Your task to perform on an android device: Go to CNN.com Image 0: 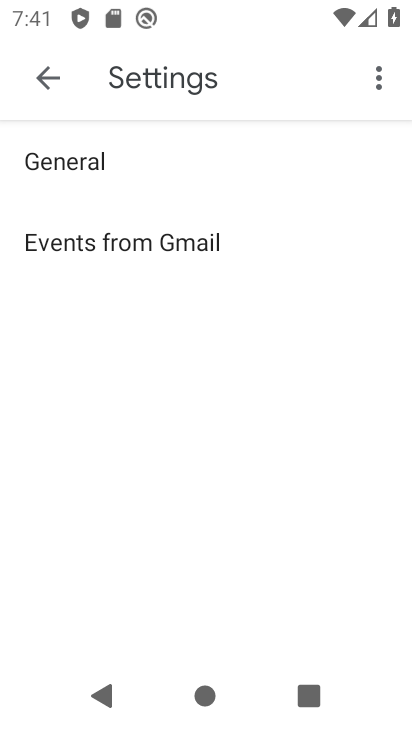
Step 0: press home button
Your task to perform on an android device: Go to CNN.com Image 1: 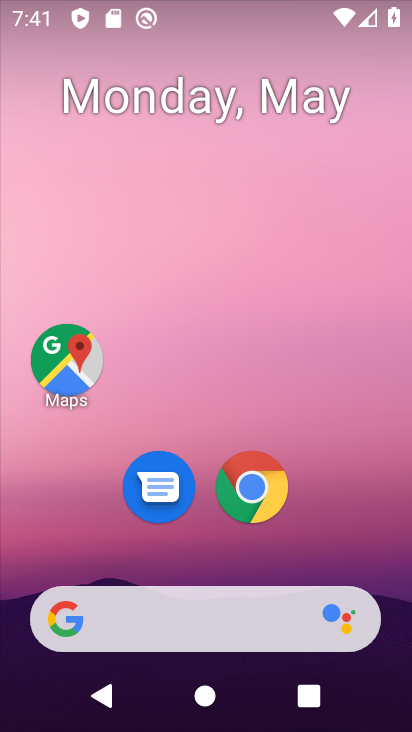
Step 1: drag from (180, 620) to (155, 180)
Your task to perform on an android device: Go to CNN.com Image 2: 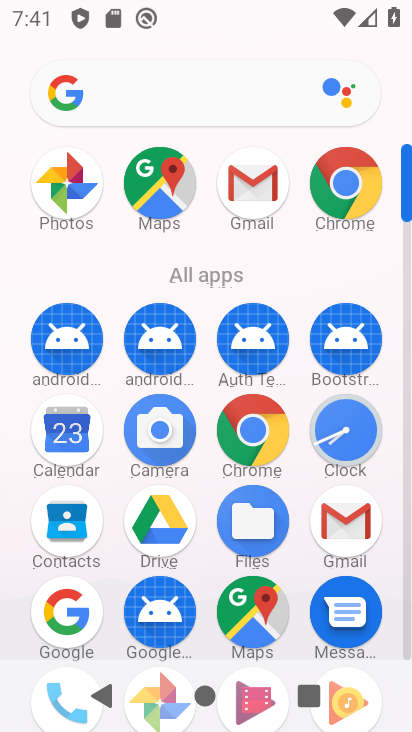
Step 2: click (67, 610)
Your task to perform on an android device: Go to CNN.com Image 3: 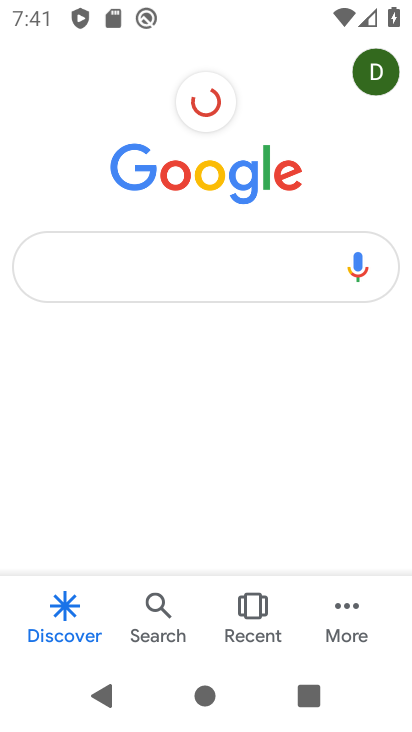
Step 3: click (240, 260)
Your task to perform on an android device: Go to CNN.com Image 4: 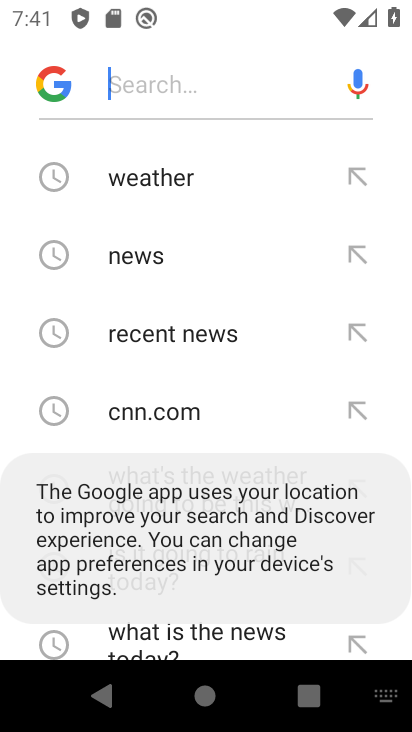
Step 4: click (174, 411)
Your task to perform on an android device: Go to CNN.com Image 5: 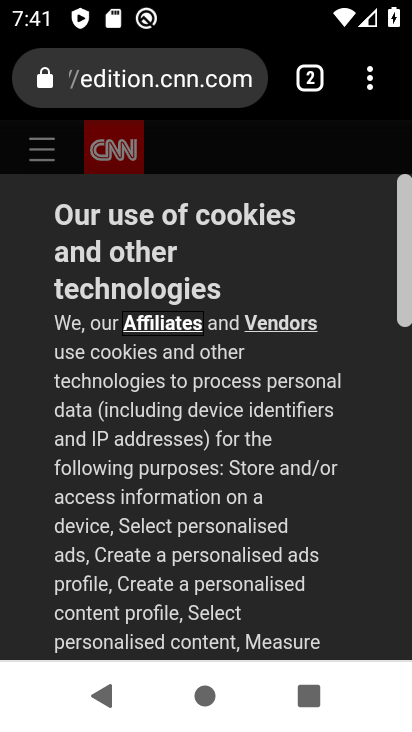
Step 5: task complete